Your task to perform on an android device: turn off location Image 0: 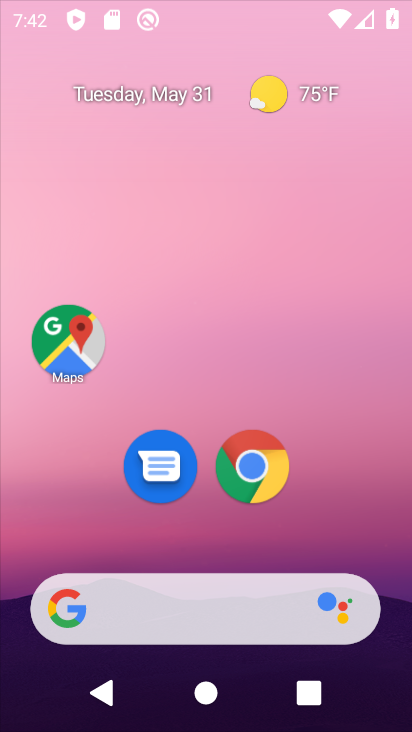
Step 0: click (225, 119)
Your task to perform on an android device: turn off location Image 1: 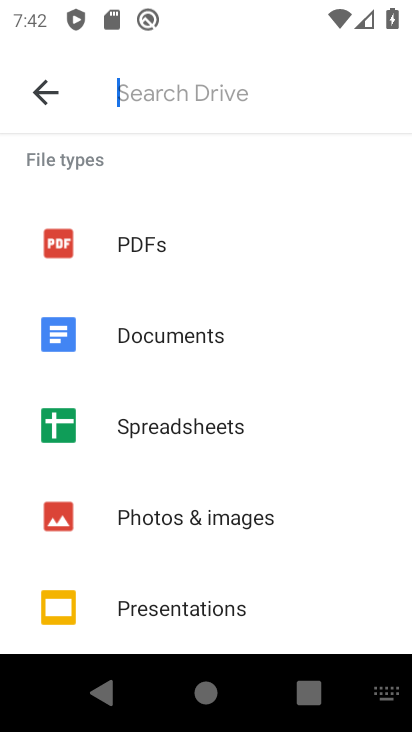
Step 1: press home button
Your task to perform on an android device: turn off location Image 2: 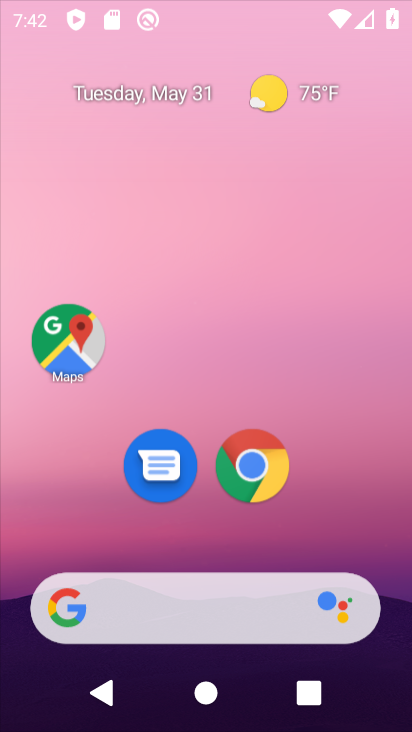
Step 2: drag from (169, 592) to (151, 0)
Your task to perform on an android device: turn off location Image 3: 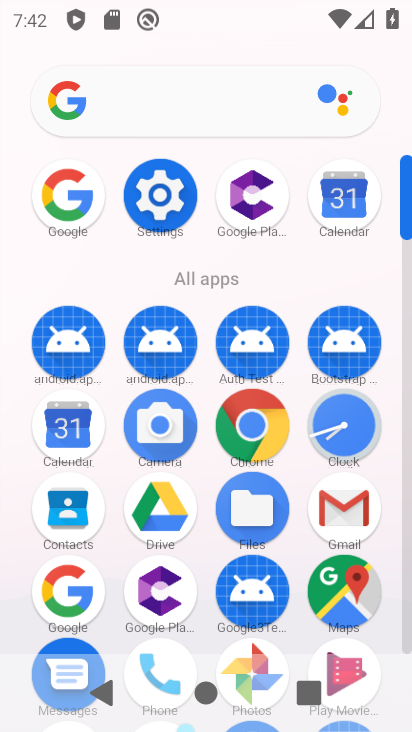
Step 3: click (158, 162)
Your task to perform on an android device: turn off location Image 4: 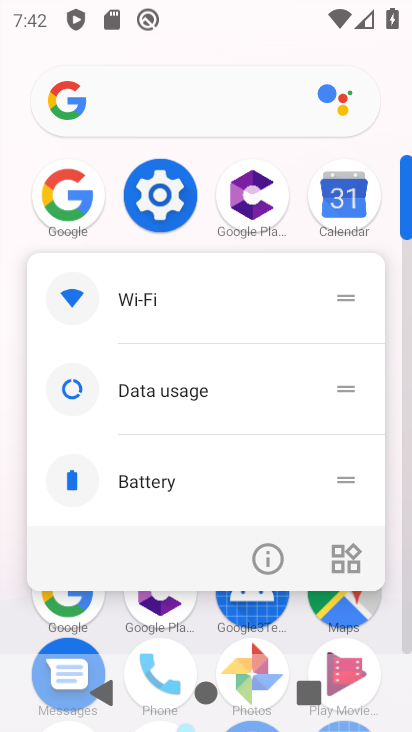
Step 4: click (261, 551)
Your task to perform on an android device: turn off location Image 5: 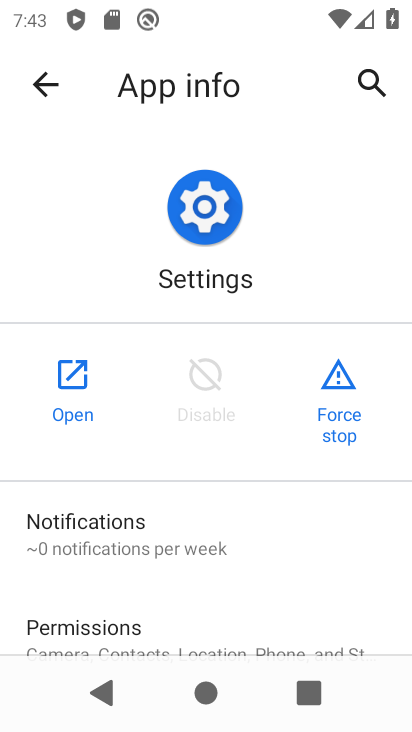
Step 5: click (81, 382)
Your task to perform on an android device: turn off location Image 6: 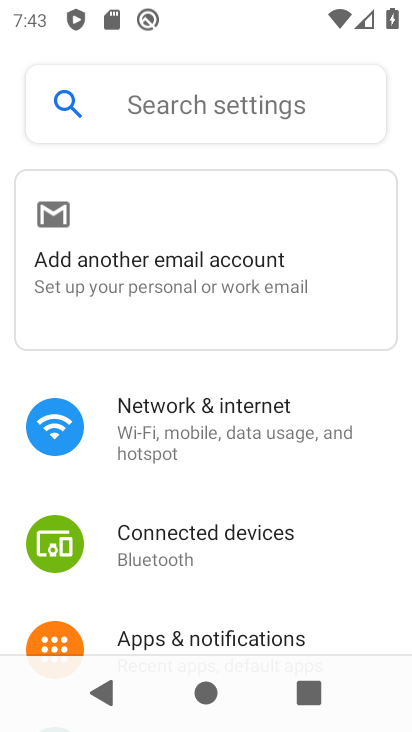
Step 6: drag from (200, 613) to (341, 91)
Your task to perform on an android device: turn off location Image 7: 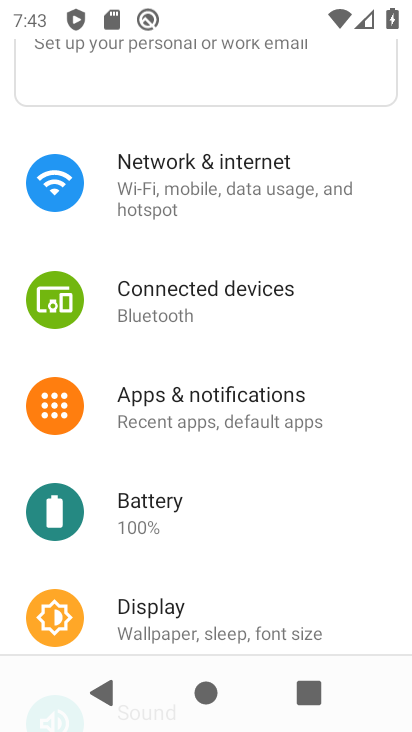
Step 7: drag from (216, 553) to (269, 218)
Your task to perform on an android device: turn off location Image 8: 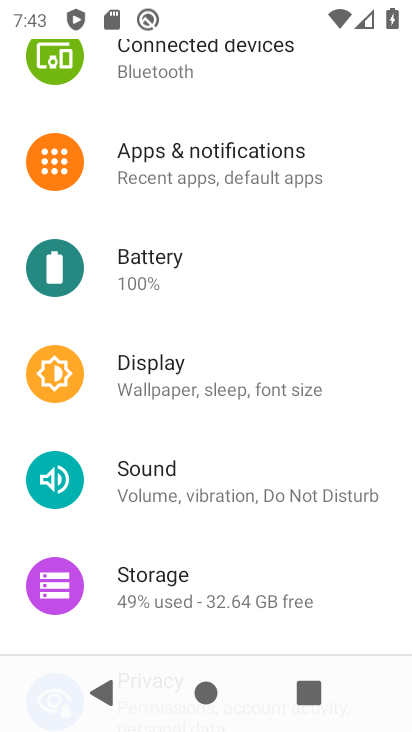
Step 8: drag from (196, 532) to (241, 253)
Your task to perform on an android device: turn off location Image 9: 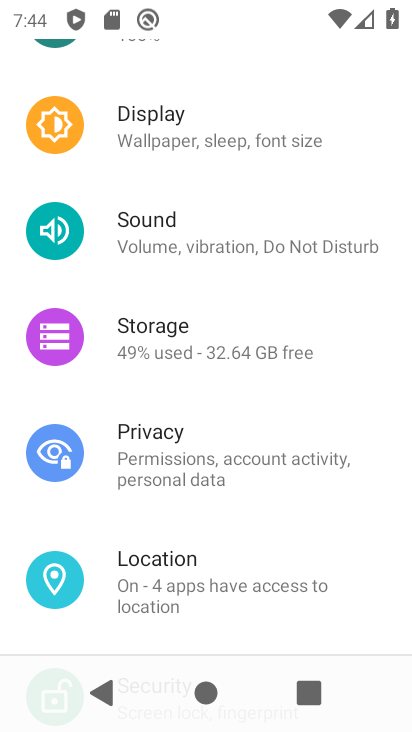
Step 9: click (184, 605)
Your task to perform on an android device: turn off location Image 10: 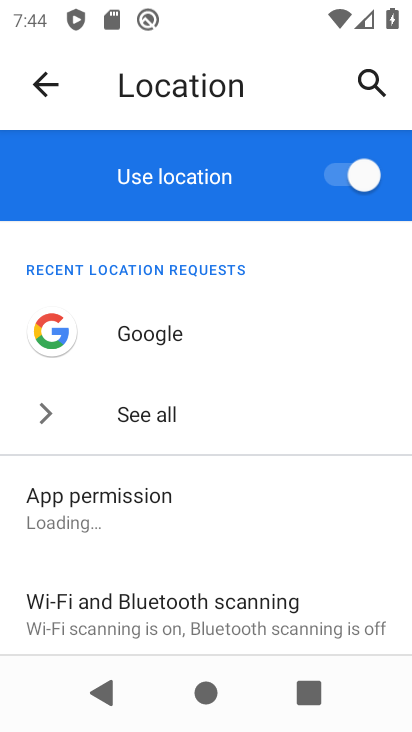
Step 10: drag from (279, 522) to (329, 263)
Your task to perform on an android device: turn off location Image 11: 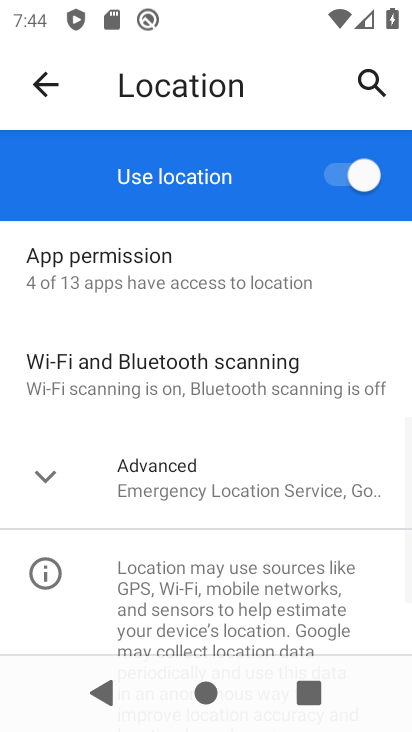
Step 11: click (353, 183)
Your task to perform on an android device: turn off location Image 12: 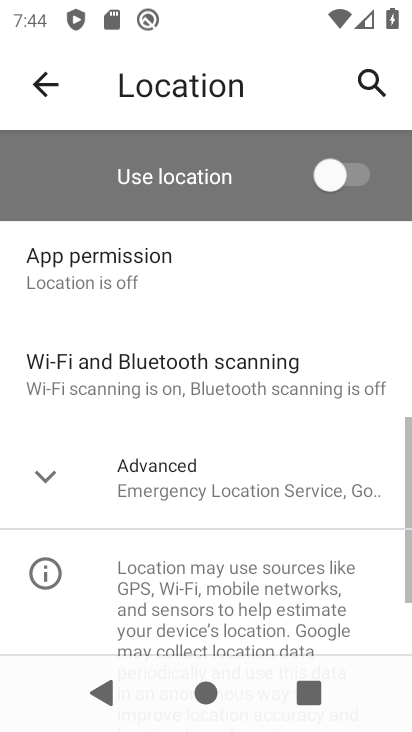
Step 12: task complete